Your task to perform on an android device: Go to Yahoo.com Image 0: 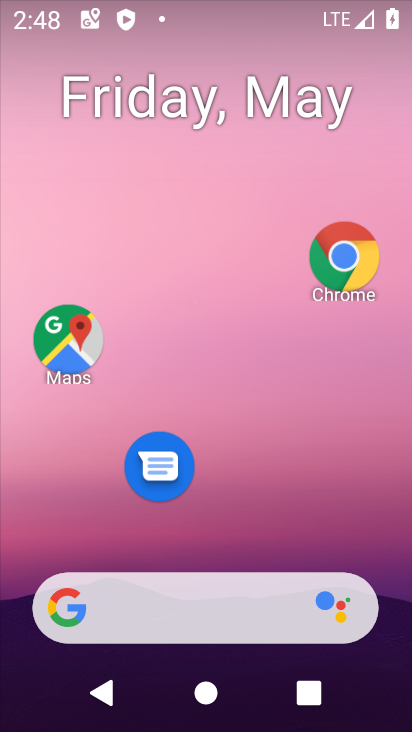
Step 0: drag from (241, 539) to (244, 85)
Your task to perform on an android device: Go to Yahoo.com Image 1: 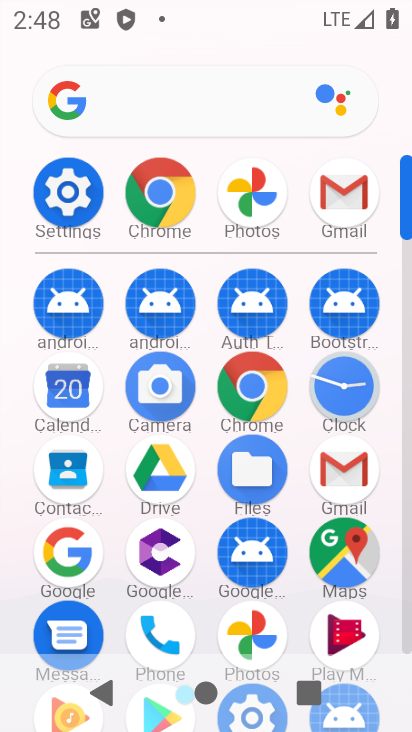
Step 1: click (259, 384)
Your task to perform on an android device: Go to Yahoo.com Image 2: 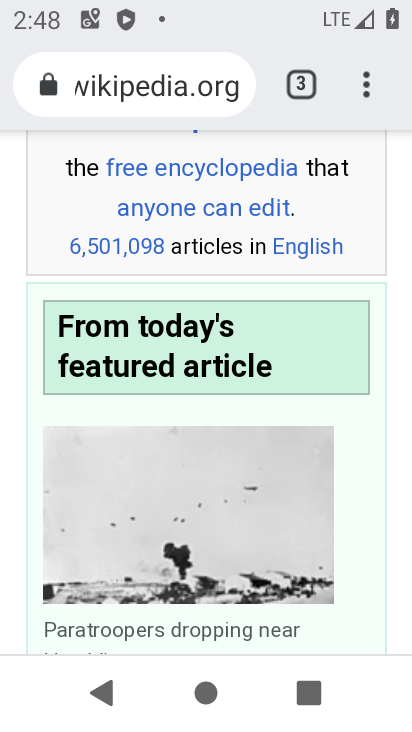
Step 2: click (183, 90)
Your task to perform on an android device: Go to Yahoo.com Image 3: 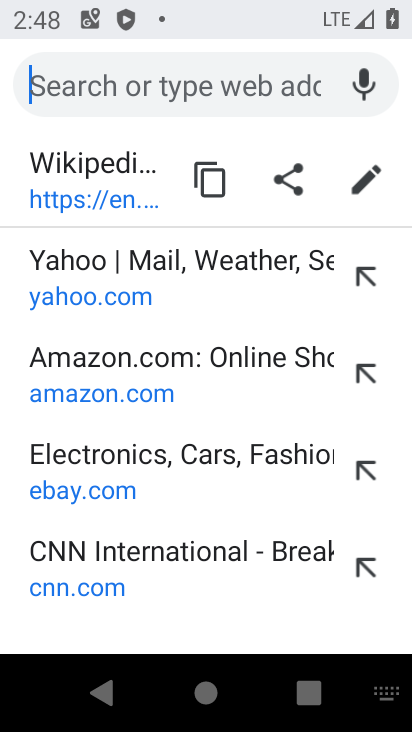
Step 3: type " Yahoo.com"
Your task to perform on an android device: Go to Yahoo.com Image 4: 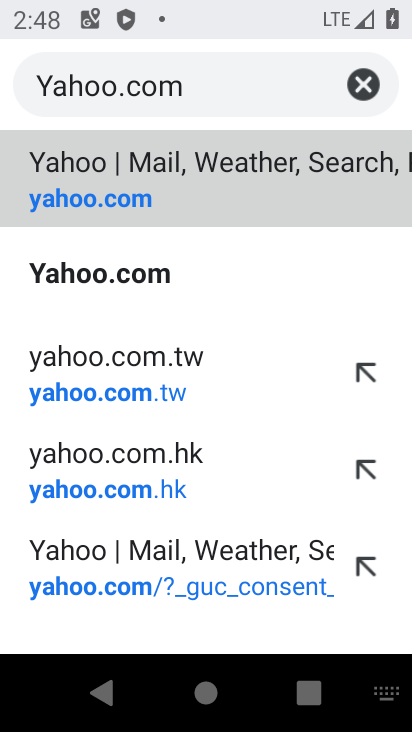
Step 4: click (96, 195)
Your task to perform on an android device: Go to Yahoo.com Image 5: 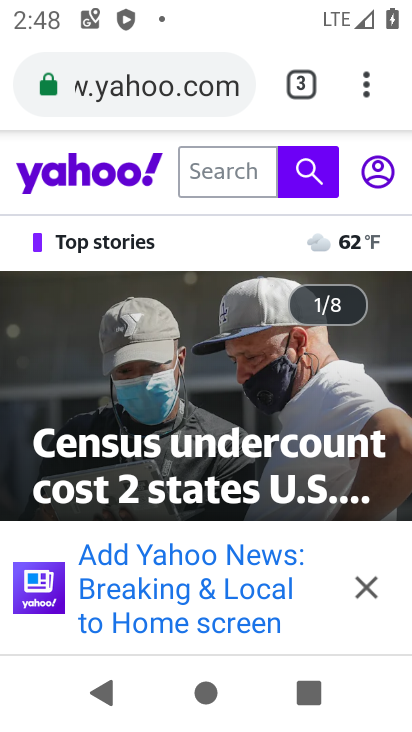
Step 5: task complete